Your task to perform on an android device: turn on bluetooth scan Image 0: 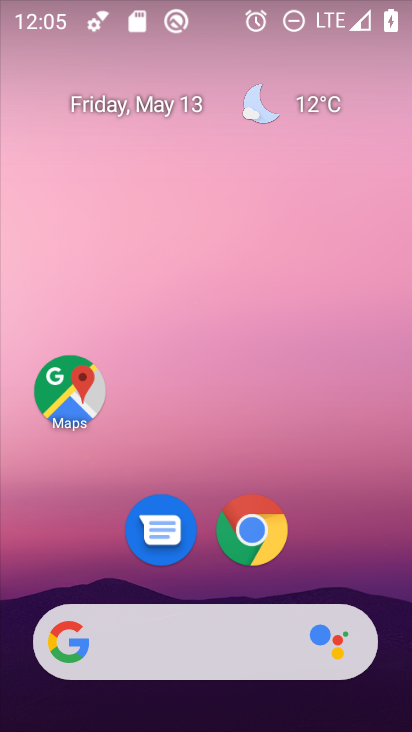
Step 0: press home button
Your task to perform on an android device: turn on bluetooth scan Image 1: 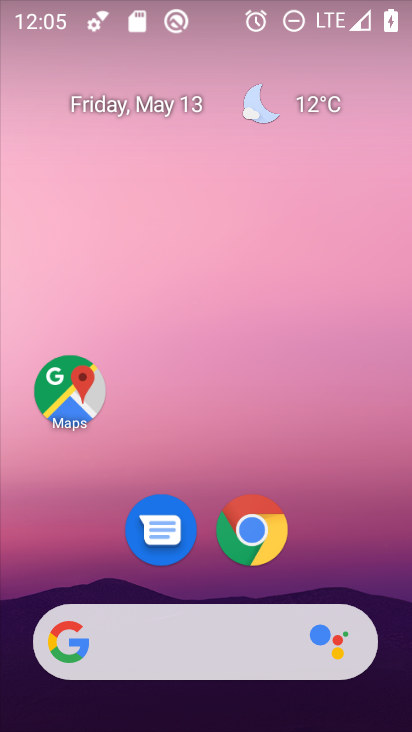
Step 1: drag from (211, 643) to (355, 96)
Your task to perform on an android device: turn on bluetooth scan Image 2: 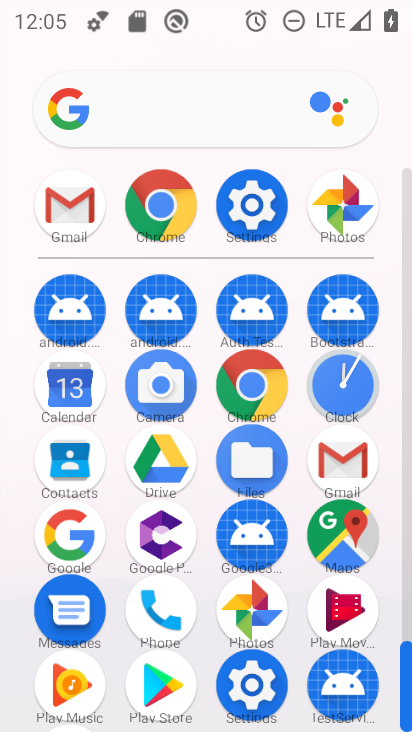
Step 2: click (259, 226)
Your task to perform on an android device: turn on bluetooth scan Image 3: 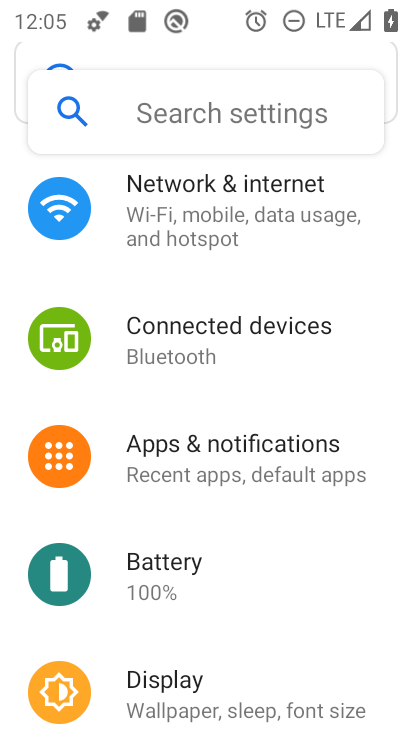
Step 3: drag from (226, 532) to (329, 125)
Your task to perform on an android device: turn on bluetooth scan Image 4: 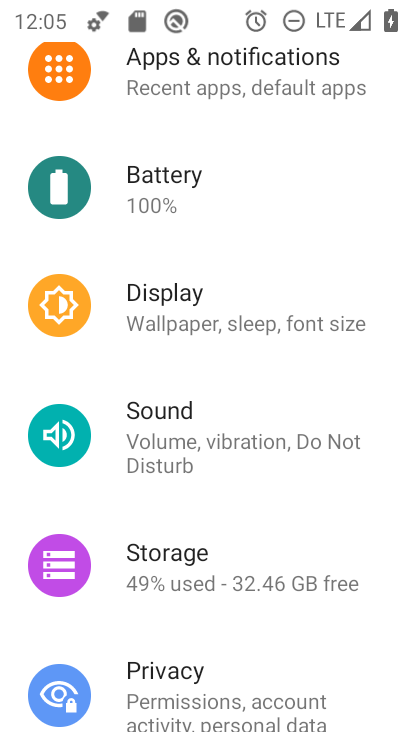
Step 4: drag from (190, 606) to (261, 237)
Your task to perform on an android device: turn on bluetooth scan Image 5: 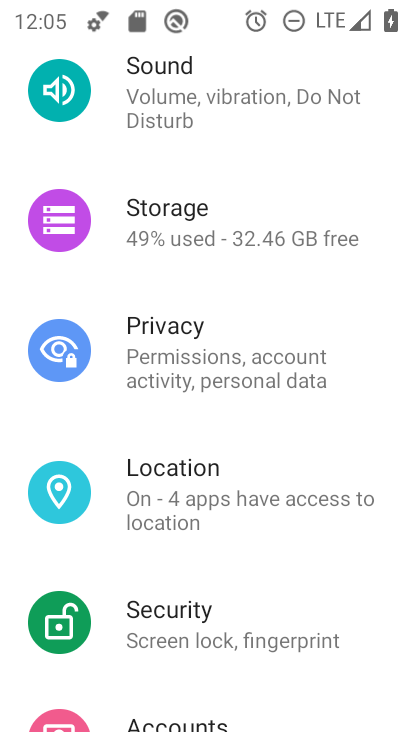
Step 5: click (169, 485)
Your task to perform on an android device: turn on bluetooth scan Image 6: 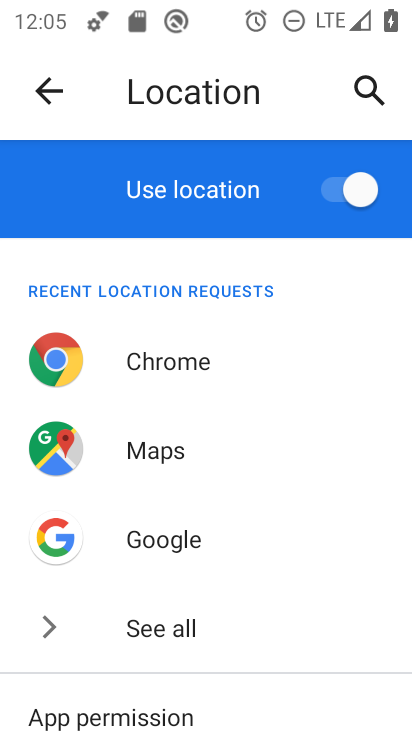
Step 6: drag from (188, 686) to (322, 158)
Your task to perform on an android device: turn on bluetooth scan Image 7: 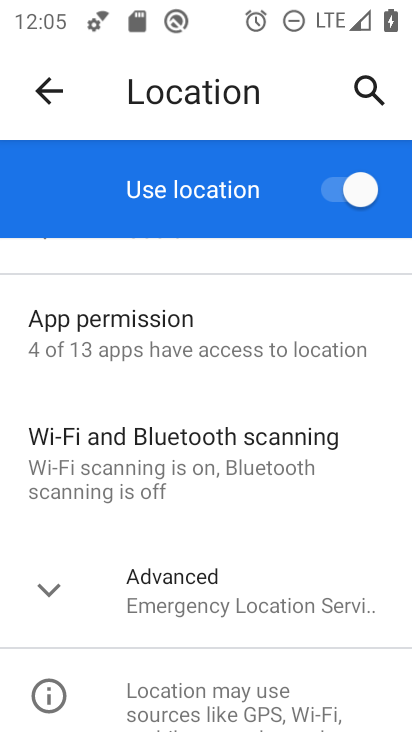
Step 7: click (208, 464)
Your task to perform on an android device: turn on bluetooth scan Image 8: 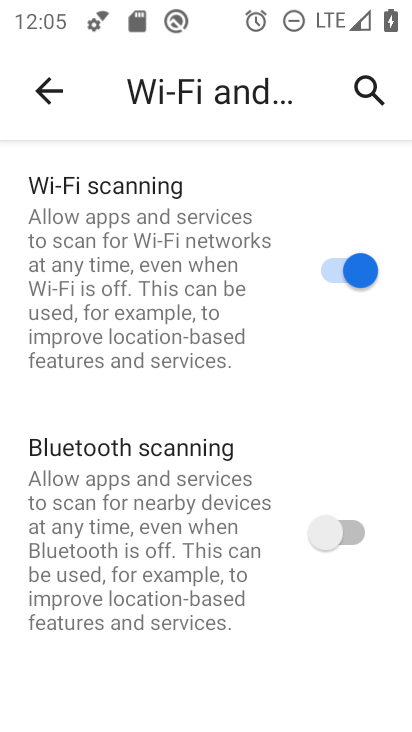
Step 8: click (352, 534)
Your task to perform on an android device: turn on bluetooth scan Image 9: 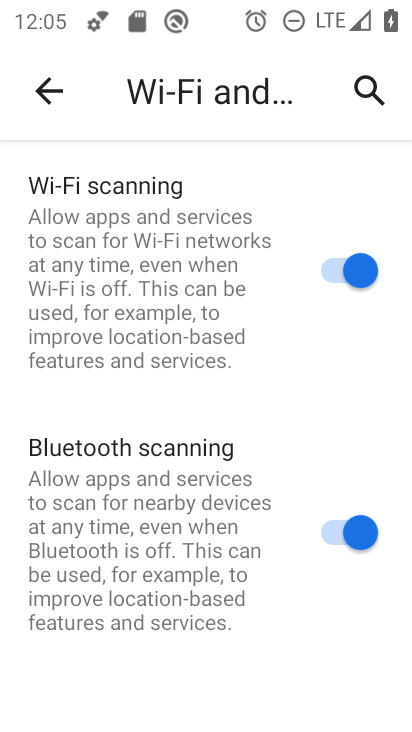
Step 9: task complete